Your task to perform on an android device: open app "DoorDash - Dasher" (install if not already installed) Image 0: 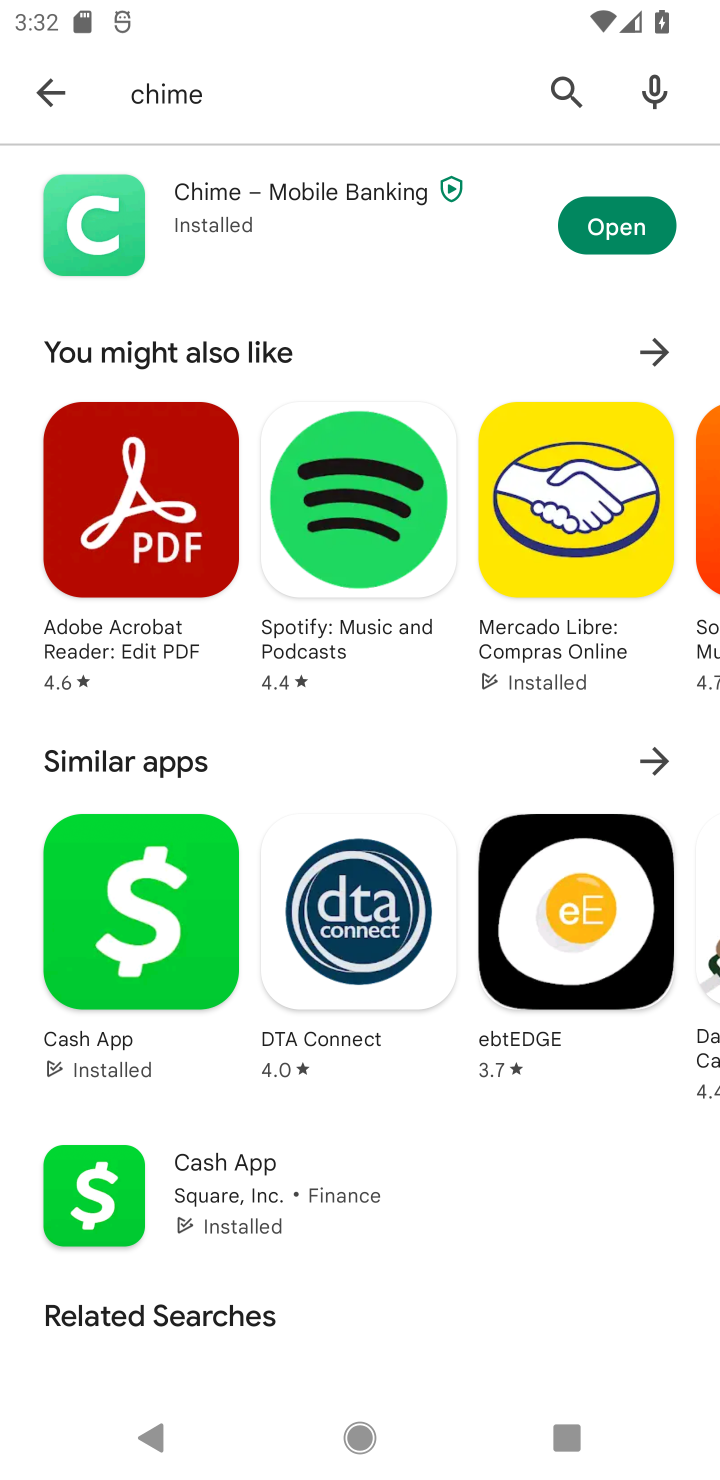
Step 0: click (590, 77)
Your task to perform on an android device: open app "DoorDash - Dasher" (install if not already installed) Image 1: 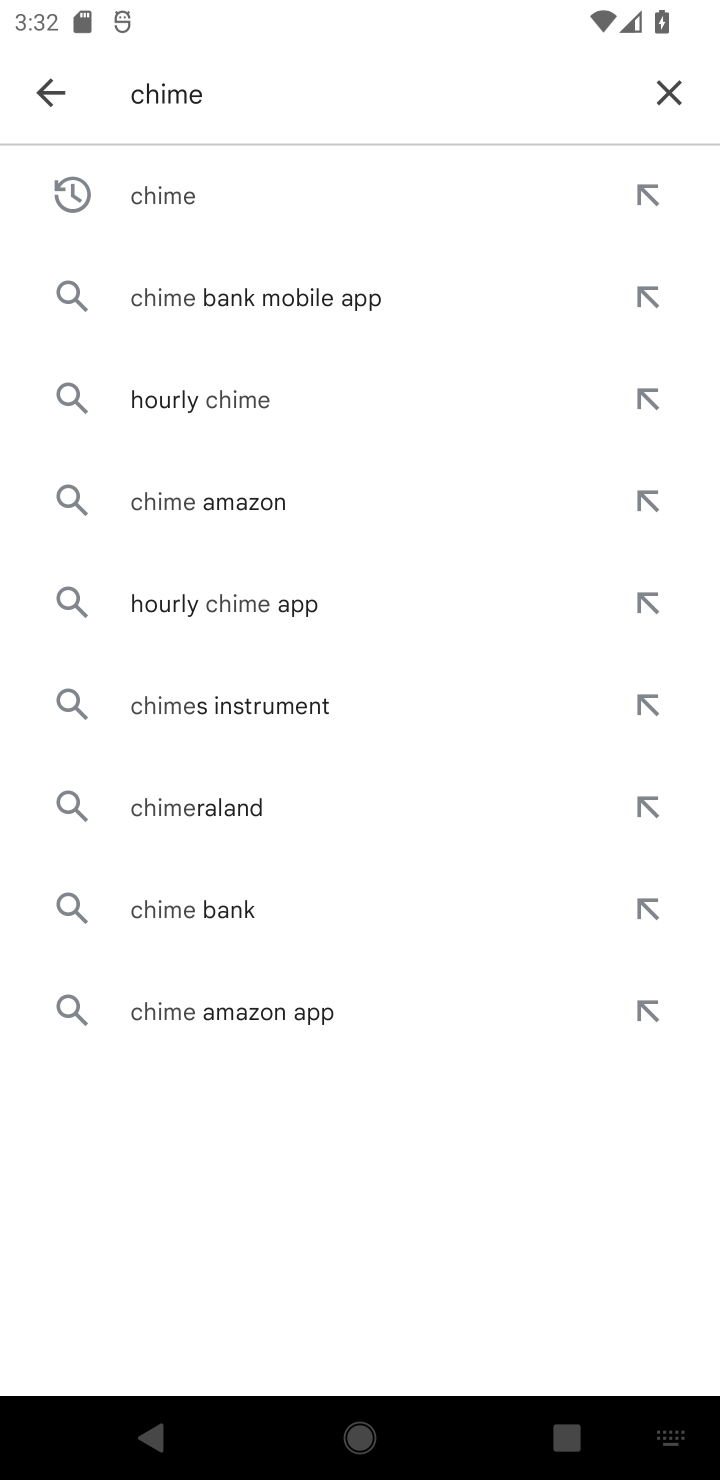
Step 1: click (686, 102)
Your task to perform on an android device: open app "DoorDash - Dasher" (install if not already installed) Image 2: 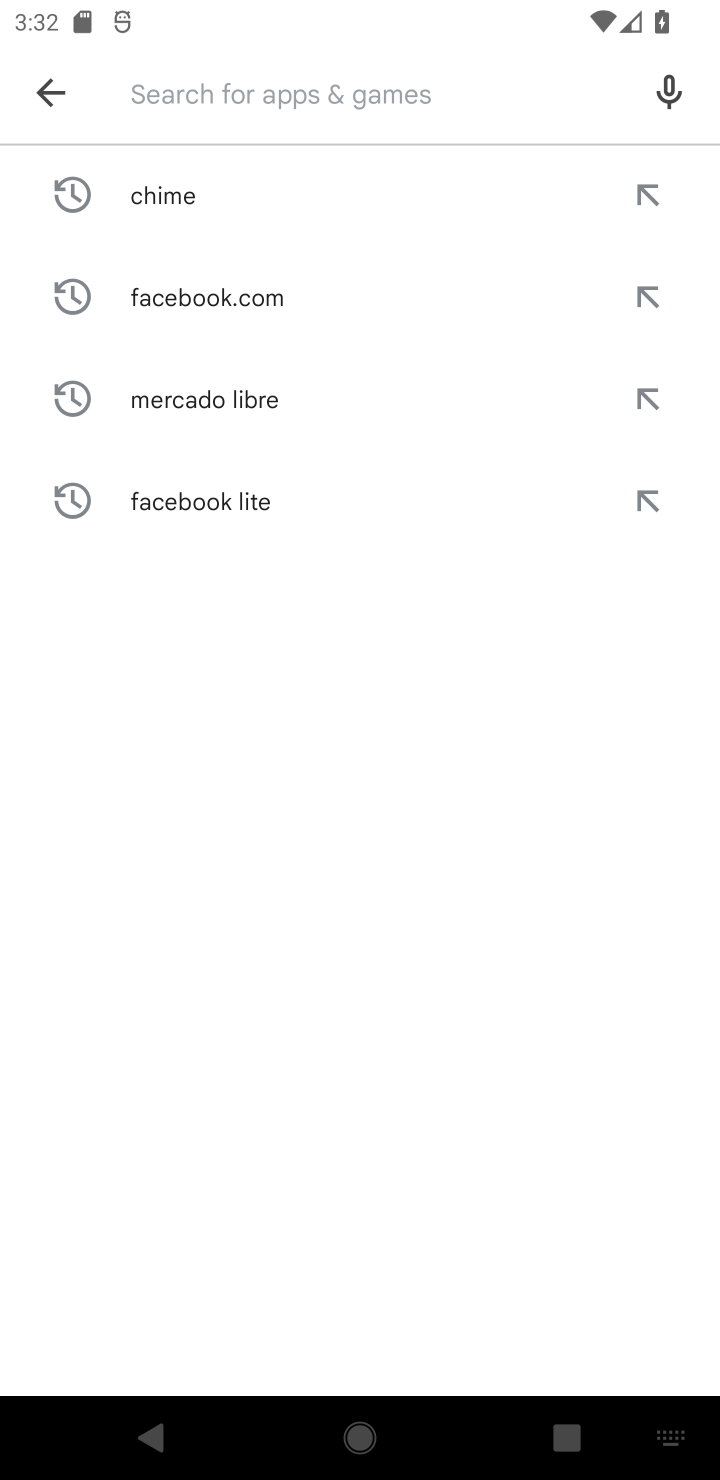
Step 2: type "doordash"
Your task to perform on an android device: open app "DoorDash - Dasher" (install if not already installed) Image 3: 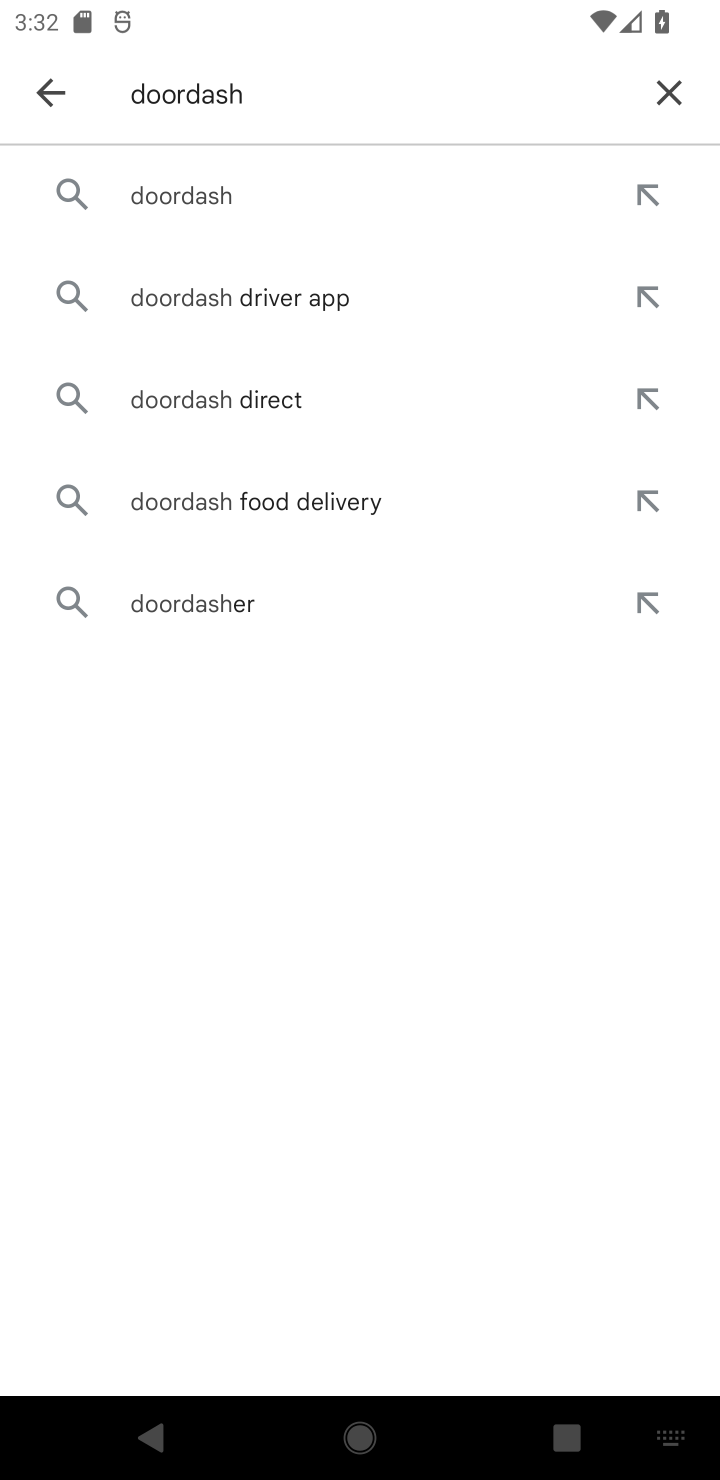
Step 3: click (441, 196)
Your task to perform on an android device: open app "DoorDash - Dasher" (install if not already installed) Image 4: 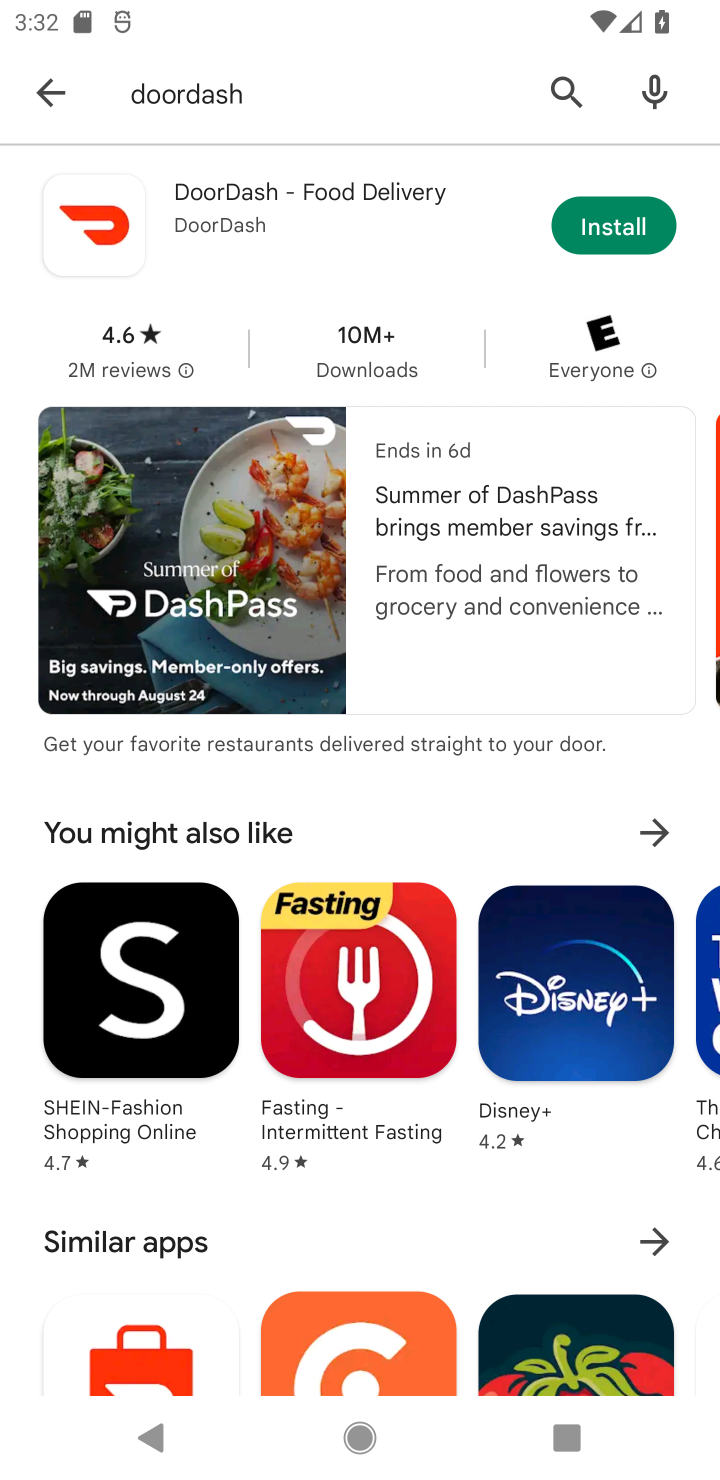
Step 4: click (600, 241)
Your task to perform on an android device: open app "DoorDash - Dasher" (install if not already installed) Image 5: 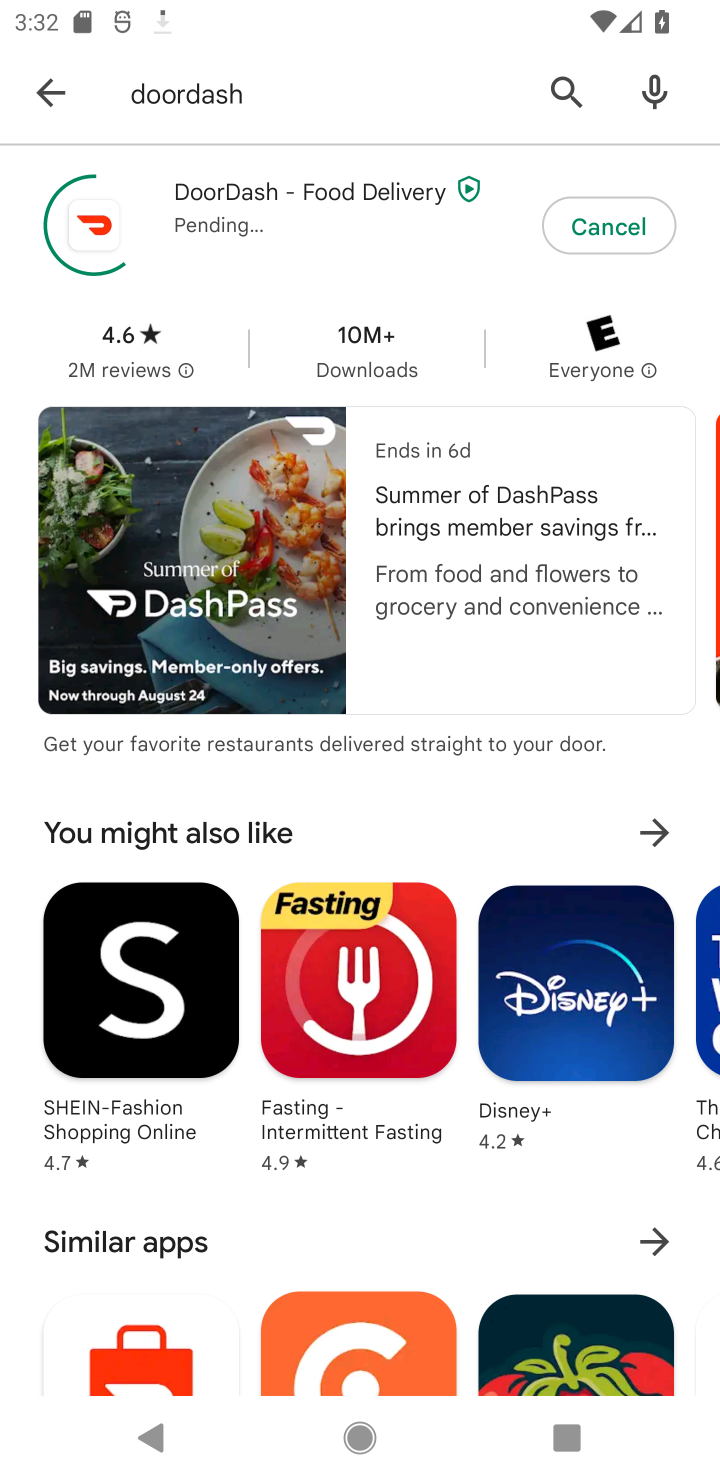
Step 5: task complete